Your task to perform on an android device: Open Youtube and go to the subscriptions tab Image 0: 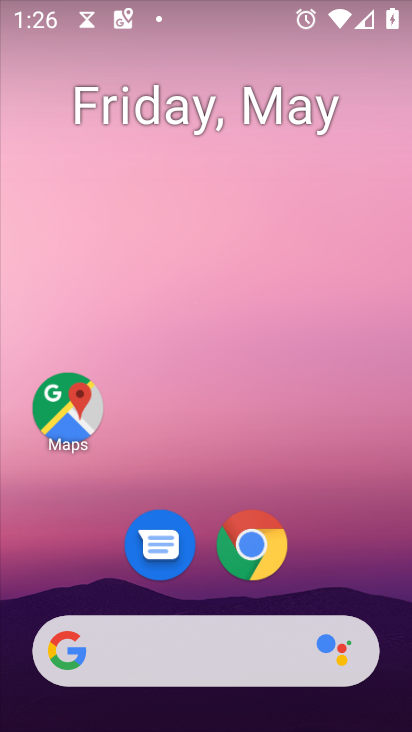
Step 0: drag from (333, 572) to (288, 354)
Your task to perform on an android device: Open Youtube and go to the subscriptions tab Image 1: 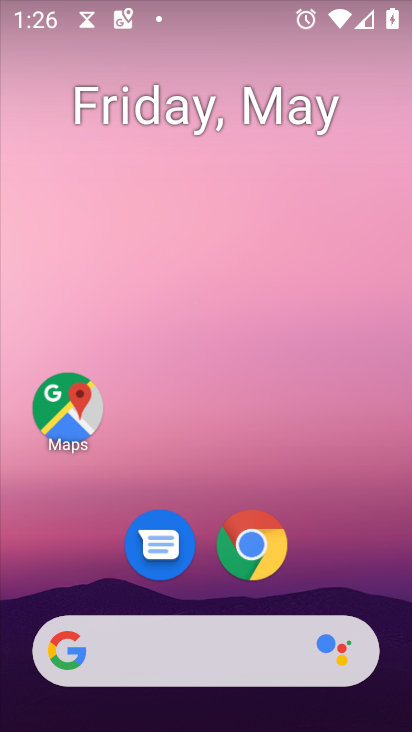
Step 1: drag from (313, 598) to (304, 135)
Your task to perform on an android device: Open Youtube and go to the subscriptions tab Image 2: 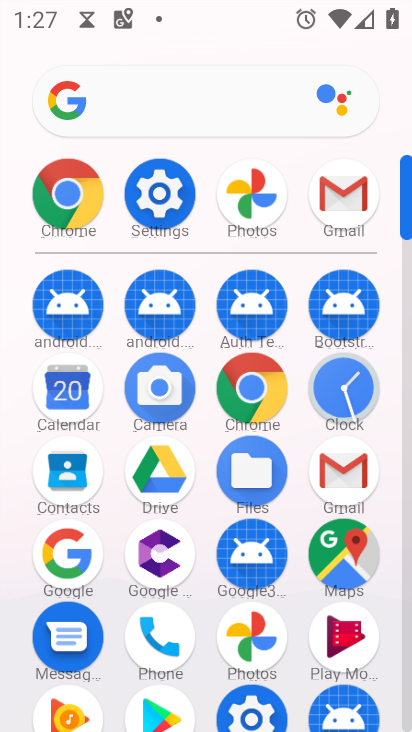
Step 2: drag from (279, 595) to (298, 180)
Your task to perform on an android device: Open Youtube and go to the subscriptions tab Image 3: 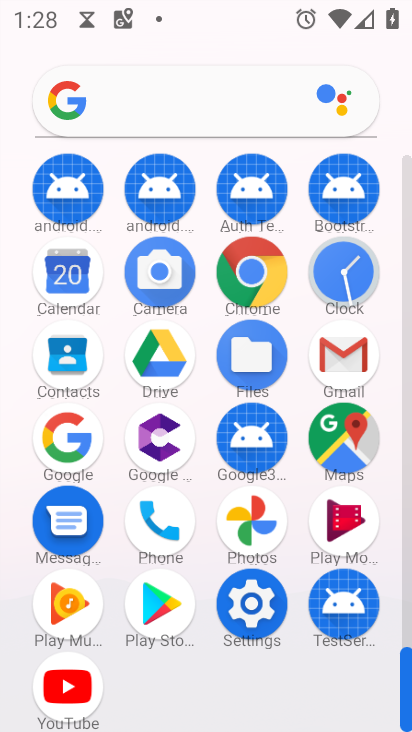
Step 3: click (60, 717)
Your task to perform on an android device: Open Youtube and go to the subscriptions tab Image 4: 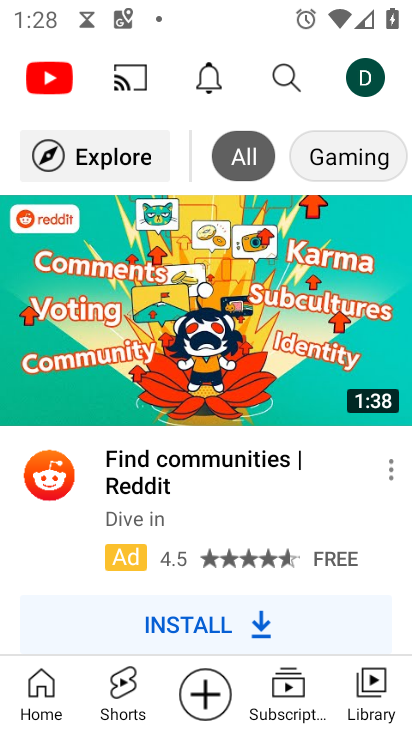
Step 4: click (280, 702)
Your task to perform on an android device: Open Youtube and go to the subscriptions tab Image 5: 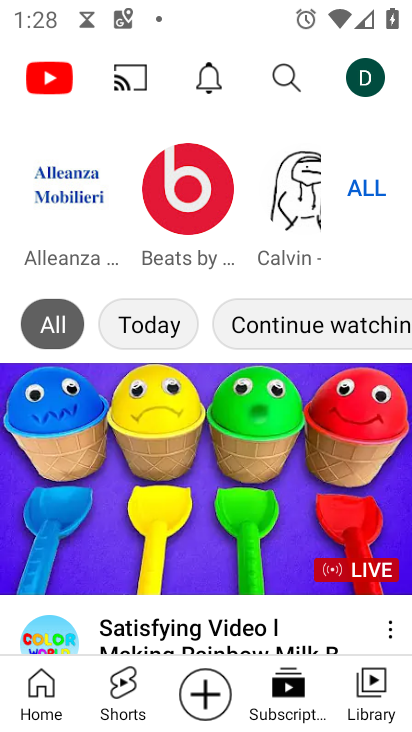
Step 5: task complete